Your task to perform on an android device: Open Yahoo.com Image 0: 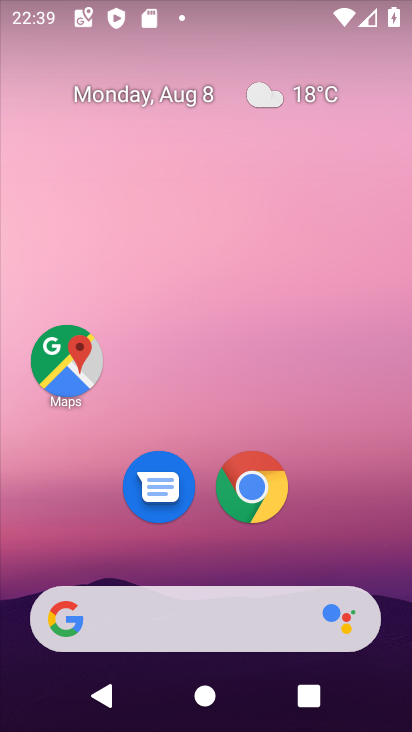
Step 0: click (251, 487)
Your task to perform on an android device: Open Yahoo.com Image 1: 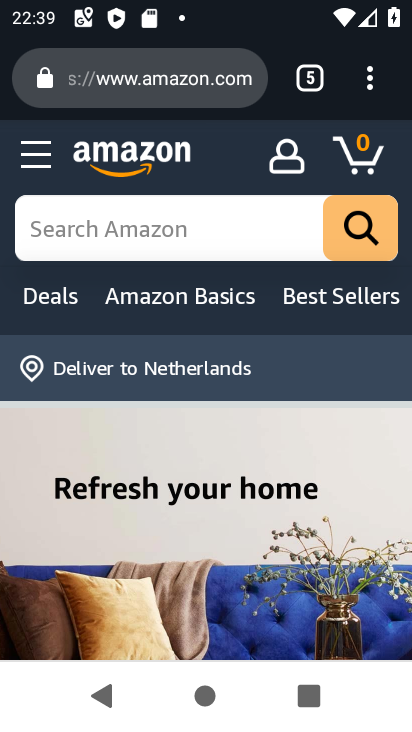
Step 1: click (369, 89)
Your task to perform on an android device: Open Yahoo.com Image 2: 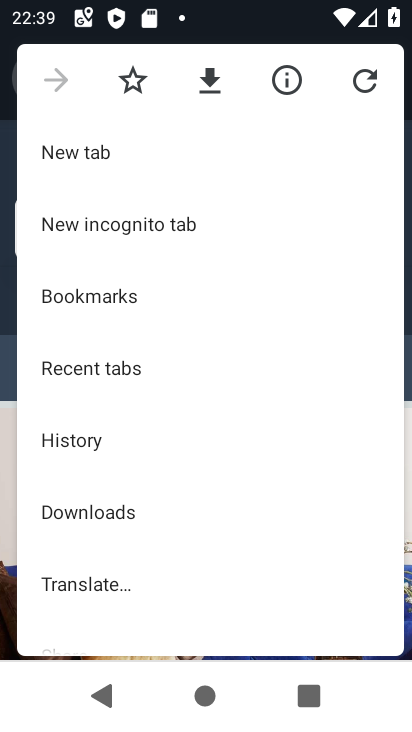
Step 2: click (68, 146)
Your task to perform on an android device: Open Yahoo.com Image 3: 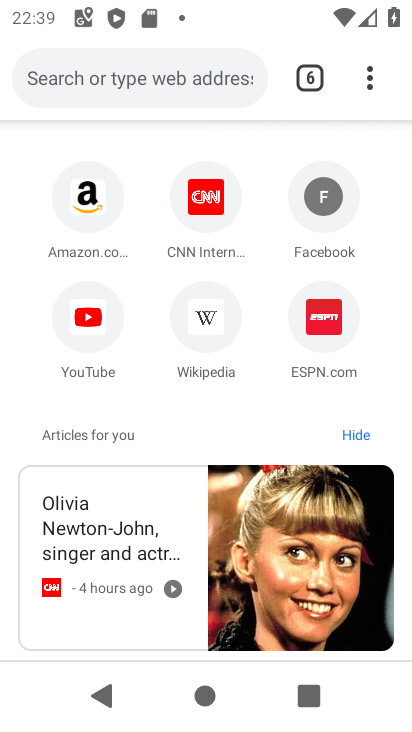
Step 3: click (182, 90)
Your task to perform on an android device: Open Yahoo.com Image 4: 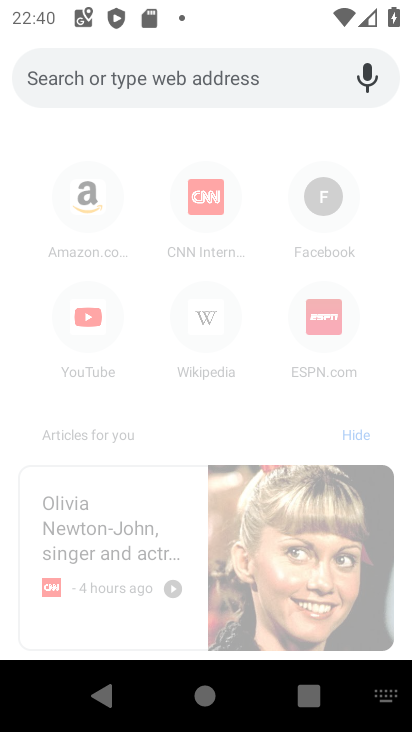
Step 4: type "Yahoo.com"
Your task to perform on an android device: Open Yahoo.com Image 5: 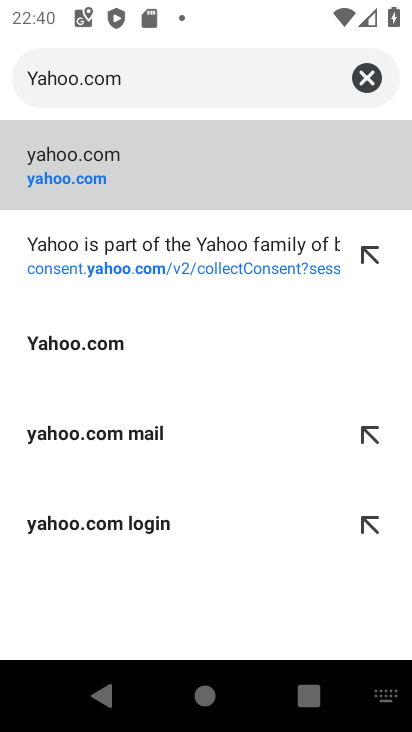
Step 5: click (45, 154)
Your task to perform on an android device: Open Yahoo.com Image 6: 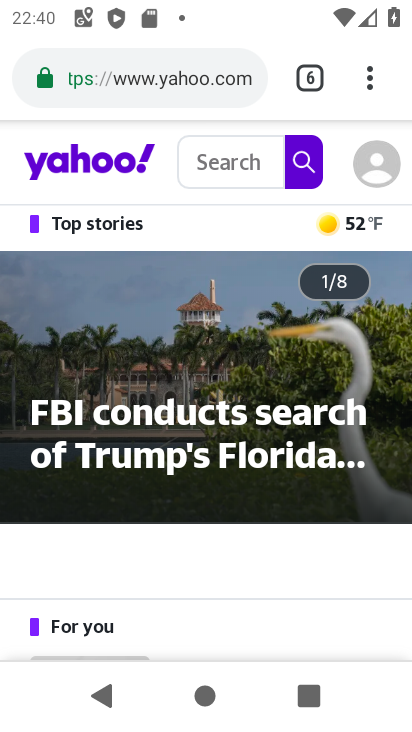
Step 6: task complete